Your task to perform on an android device: Search for Italian restaurants on Maps Image 0: 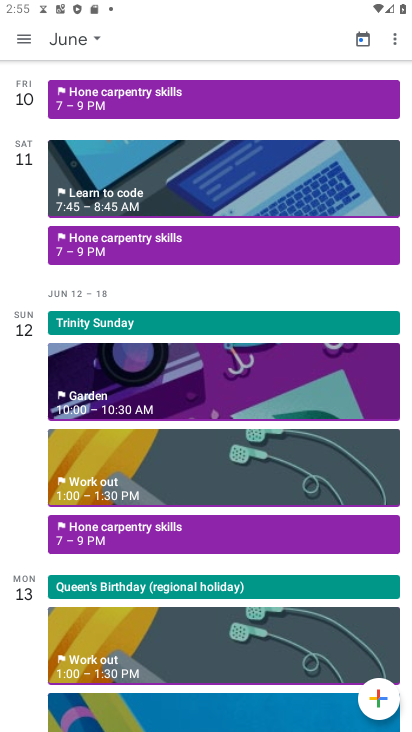
Step 0: press home button
Your task to perform on an android device: Search for Italian restaurants on Maps Image 1: 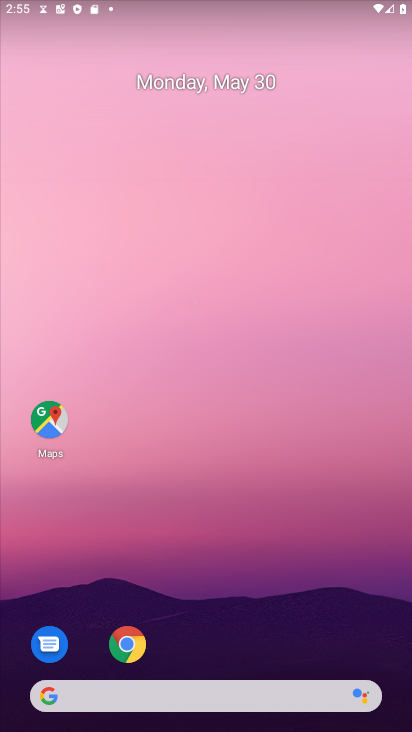
Step 1: click (54, 411)
Your task to perform on an android device: Search for Italian restaurants on Maps Image 2: 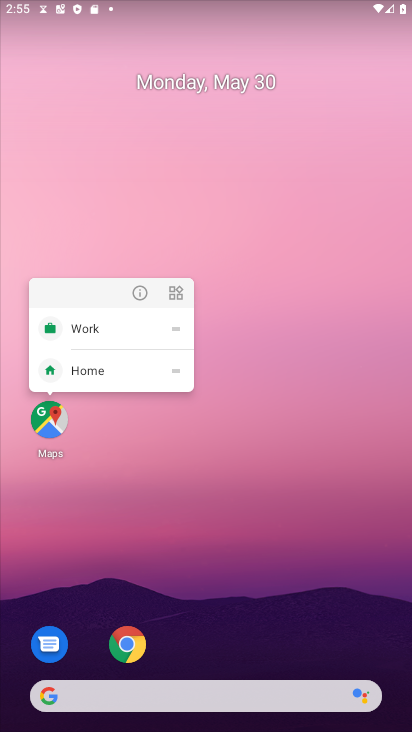
Step 2: click (56, 412)
Your task to perform on an android device: Search for Italian restaurants on Maps Image 3: 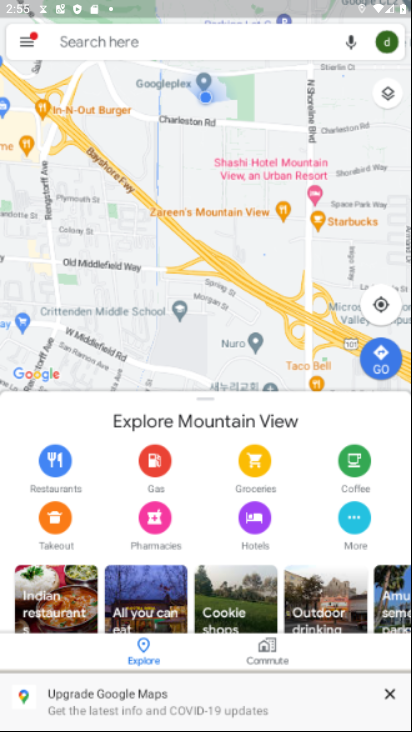
Step 3: click (206, 45)
Your task to perform on an android device: Search for Italian restaurants on Maps Image 4: 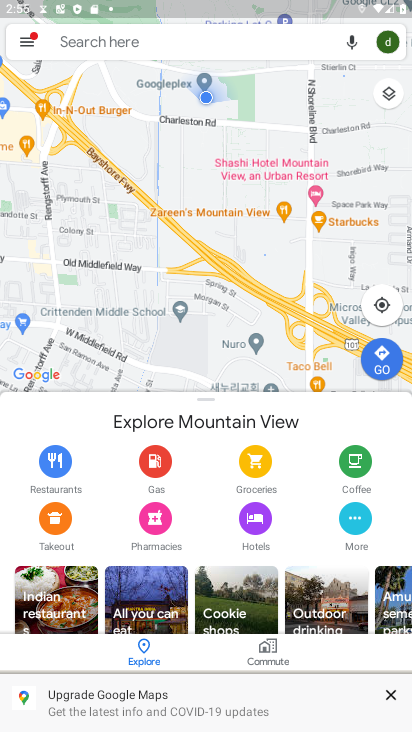
Step 4: click (227, 38)
Your task to perform on an android device: Search for Italian restaurants on Maps Image 5: 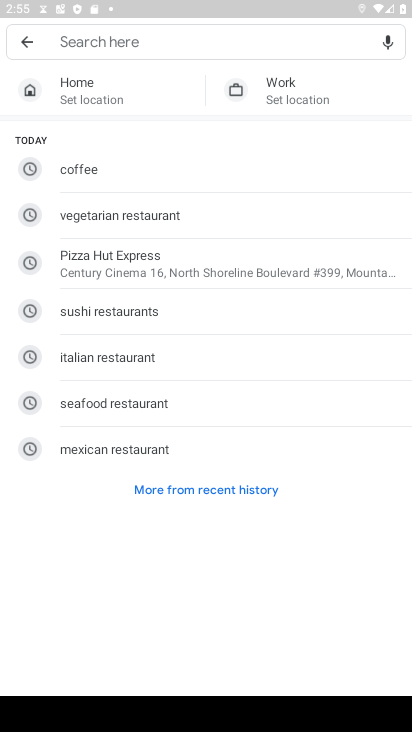
Step 5: click (124, 352)
Your task to perform on an android device: Search for Italian restaurants on Maps Image 6: 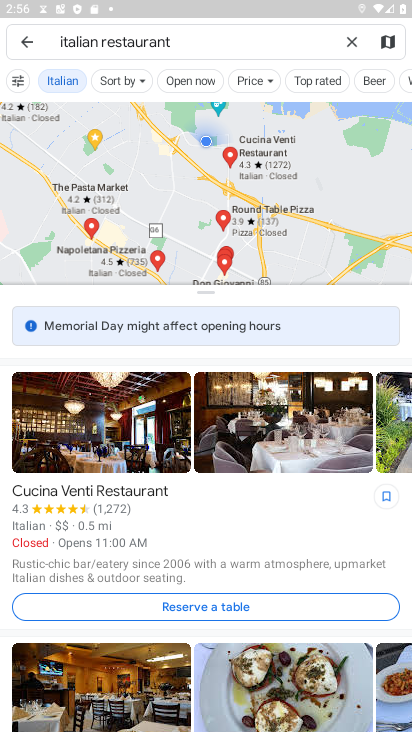
Step 6: task complete